Your task to perform on an android device: turn off picture-in-picture Image 0: 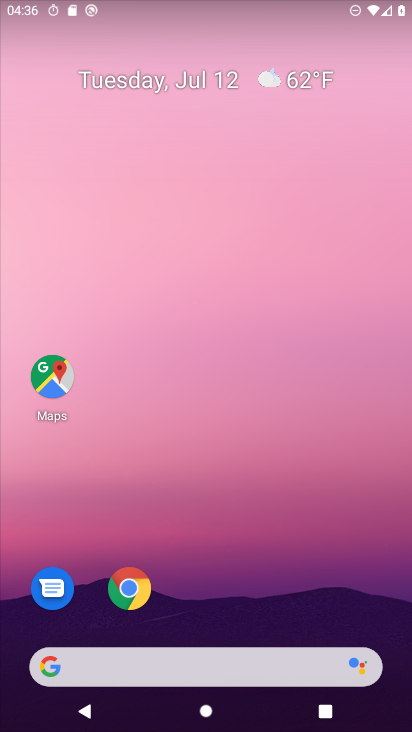
Step 0: click (128, 581)
Your task to perform on an android device: turn off picture-in-picture Image 1: 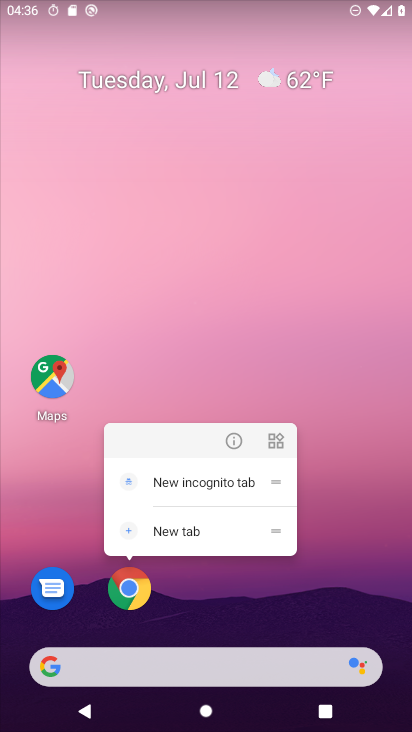
Step 1: click (229, 444)
Your task to perform on an android device: turn off picture-in-picture Image 2: 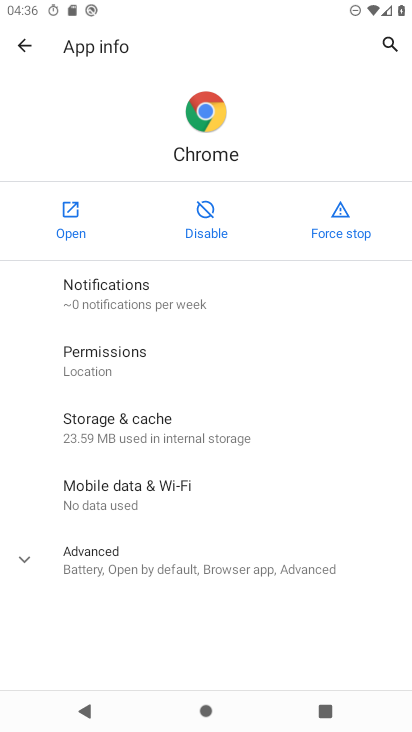
Step 2: click (173, 570)
Your task to perform on an android device: turn off picture-in-picture Image 3: 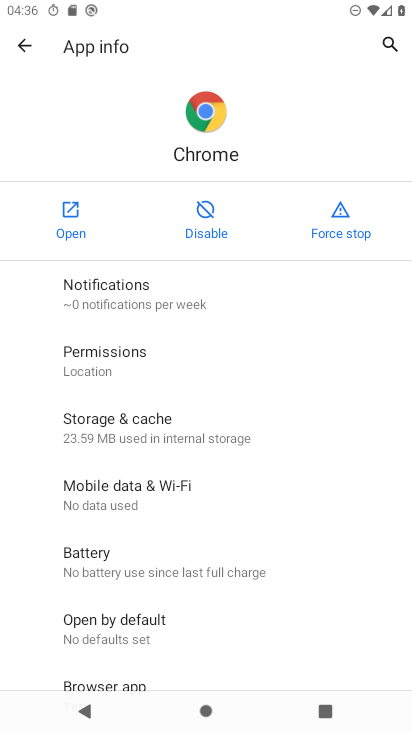
Step 3: drag from (204, 586) to (211, 347)
Your task to perform on an android device: turn off picture-in-picture Image 4: 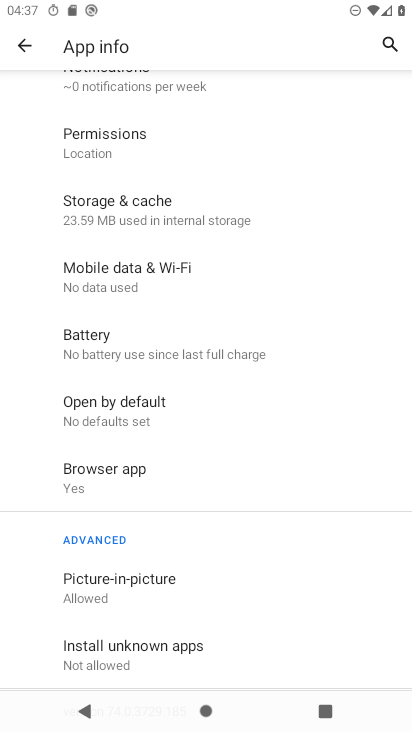
Step 4: click (159, 591)
Your task to perform on an android device: turn off picture-in-picture Image 5: 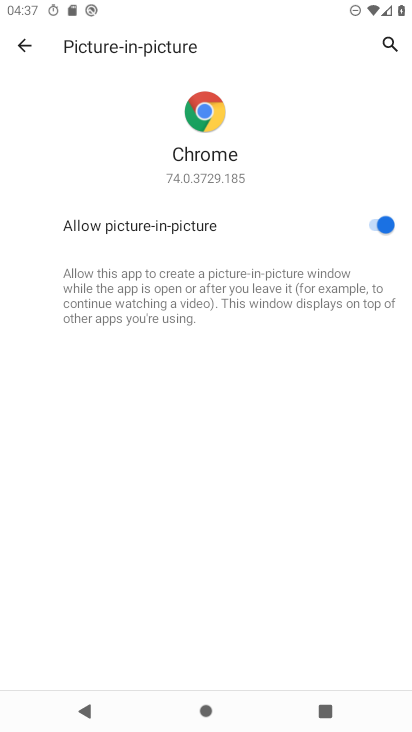
Step 5: click (365, 224)
Your task to perform on an android device: turn off picture-in-picture Image 6: 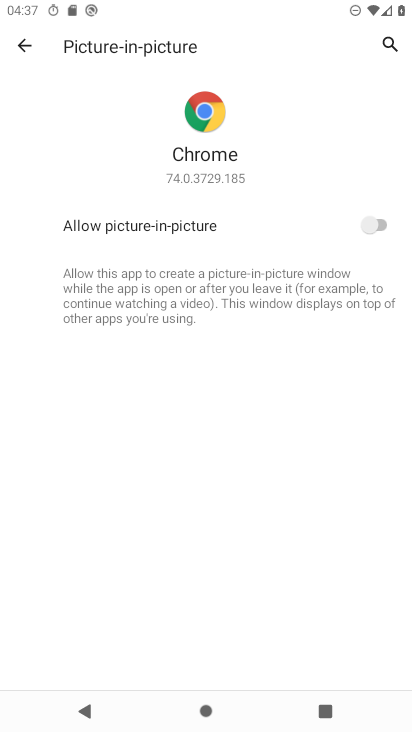
Step 6: task complete